Your task to perform on an android device: check google app version Image 0: 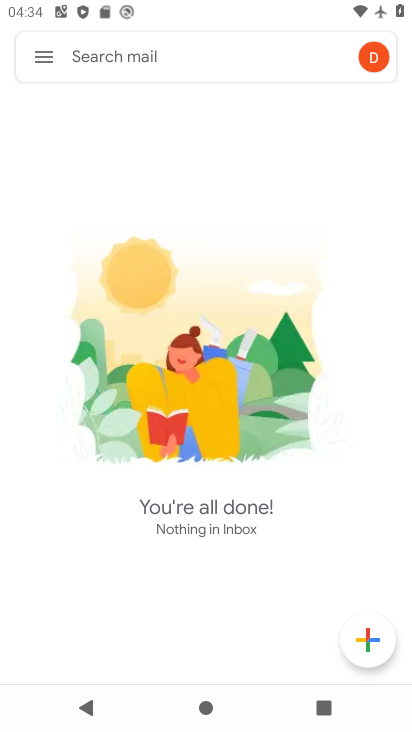
Step 0: press home button
Your task to perform on an android device: check google app version Image 1: 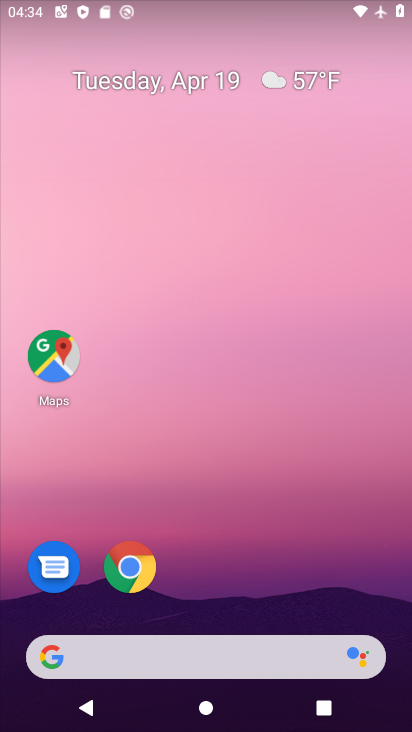
Step 1: drag from (380, 592) to (377, 170)
Your task to perform on an android device: check google app version Image 2: 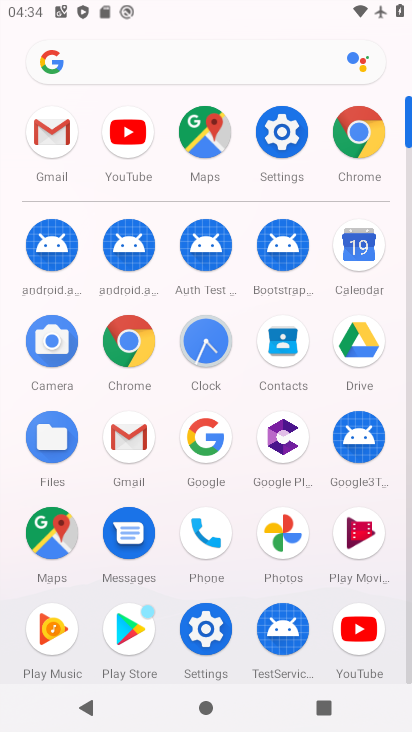
Step 2: click (215, 440)
Your task to perform on an android device: check google app version Image 3: 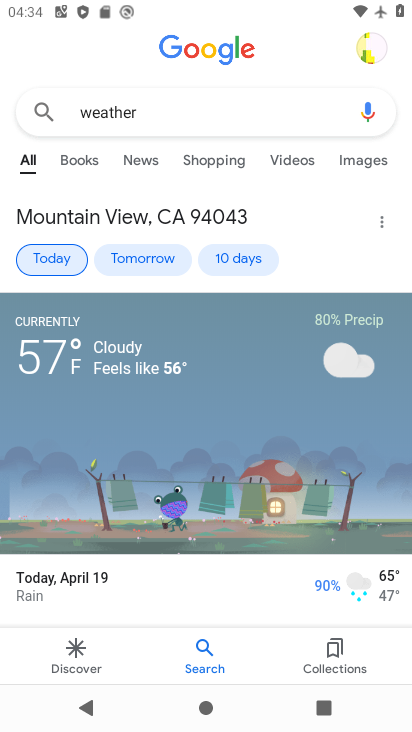
Step 3: click (371, 54)
Your task to perform on an android device: check google app version Image 4: 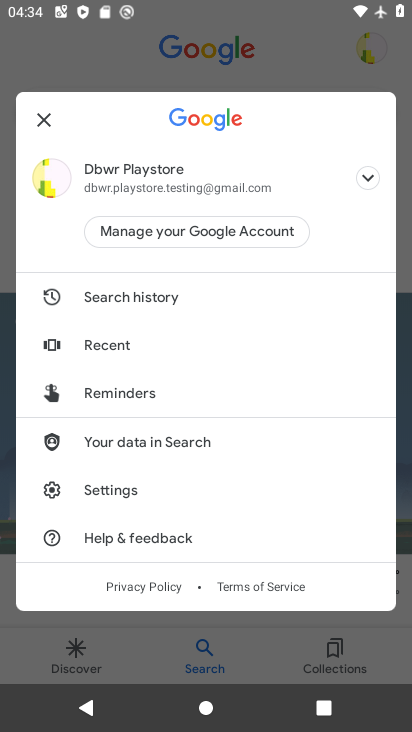
Step 4: drag from (309, 468) to (294, 331)
Your task to perform on an android device: check google app version Image 5: 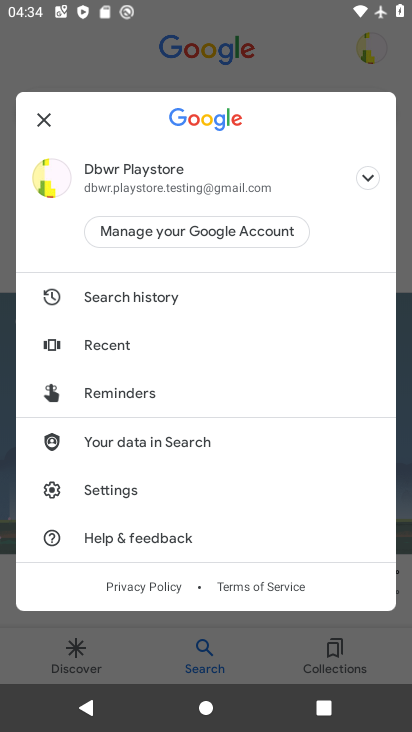
Step 5: click (145, 492)
Your task to perform on an android device: check google app version Image 6: 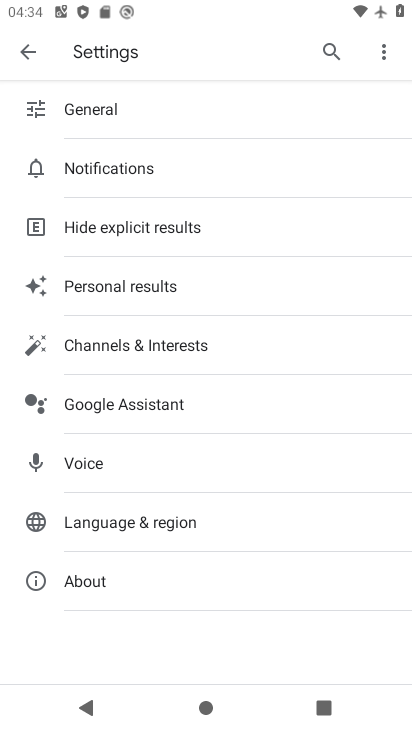
Step 6: click (172, 598)
Your task to perform on an android device: check google app version Image 7: 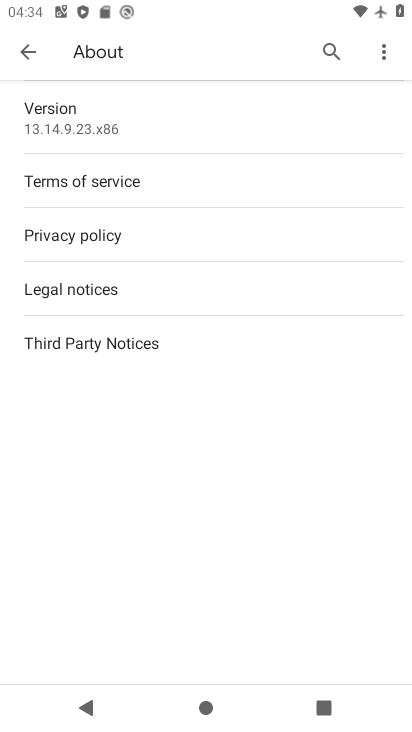
Step 7: task complete